Your task to perform on an android device: turn off sleep mode Image 0: 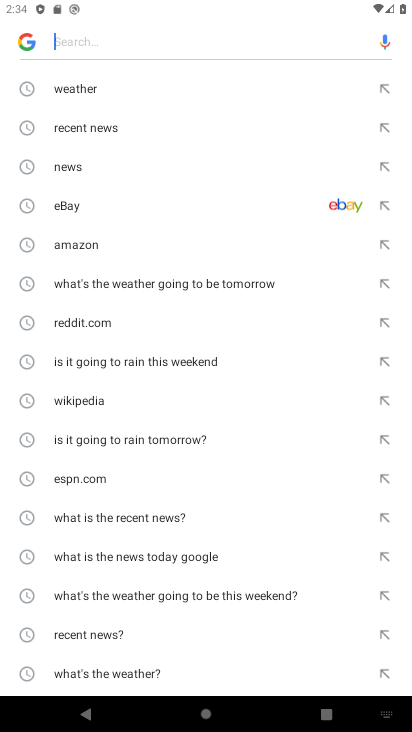
Step 0: press home button
Your task to perform on an android device: turn off sleep mode Image 1: 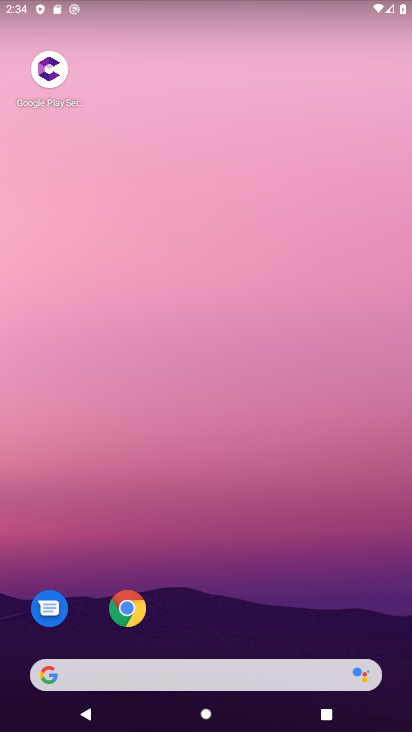
Step 1: drag from (220, 614) to (326, 4)
Your task to perform on an android device: turn off sleep mode Image 2: 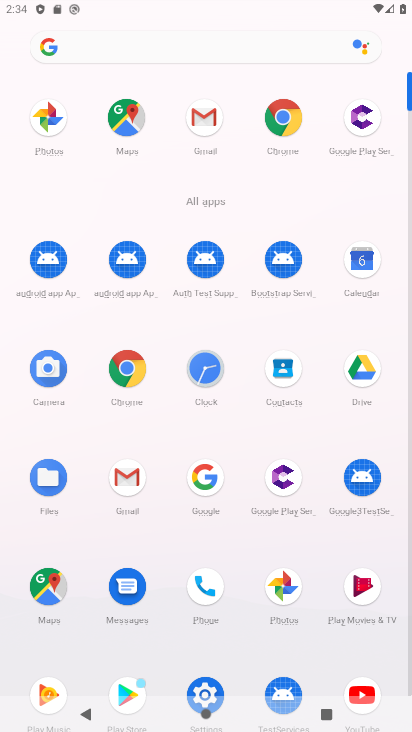
Step 2: click (203, 691)
Your task to perform on an android device: turn off sleep mode Image 3: 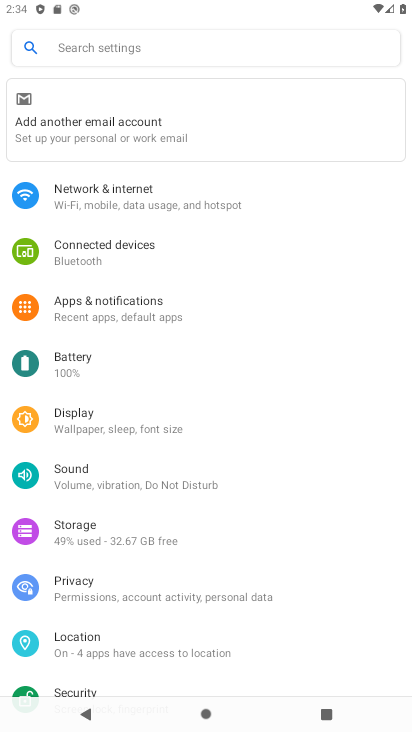
Step 3: click (202, 55)
Your task to perform on an android device: turn off sleep mode Image 4: 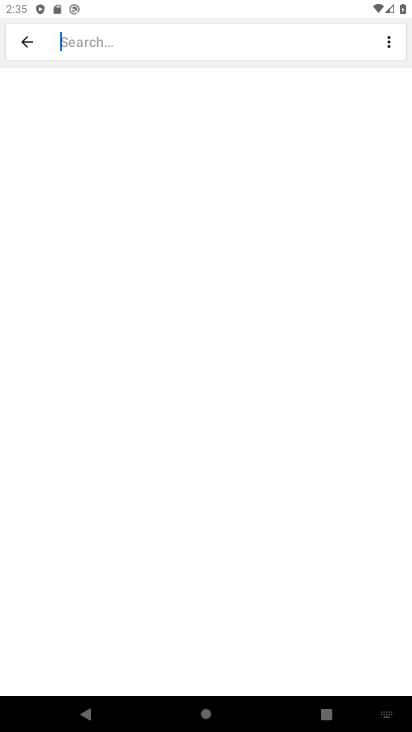
Step 4: type "sleep mode"
Your task to perform on an android device: turn off sleep mode Image 5: 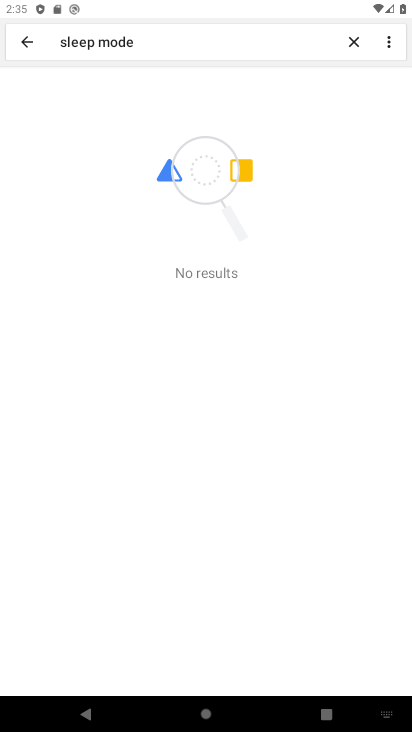
Step 5: task complete